Your task to perform on an android device: turn vacation reply on in the gmail app Image 0: 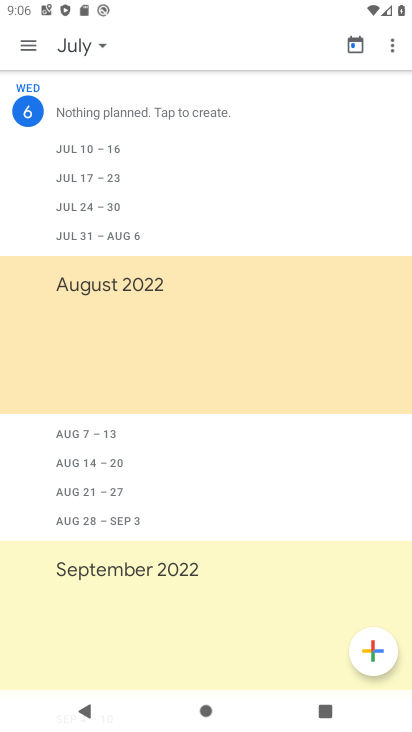
Step 0: press home button
Your task to perform on an android device: turn vacation reply on in the gmail app Image 1: 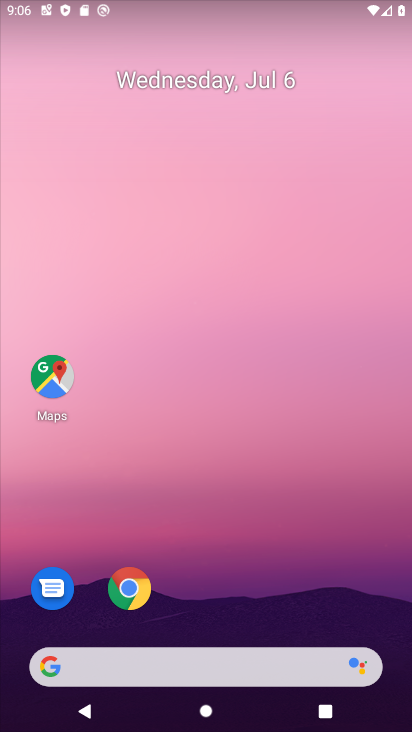
Step 1: drag from (171, 669) to (307, 41)
Your task to perform on an android device: turn vacation reply on in the gmail app Image 2: 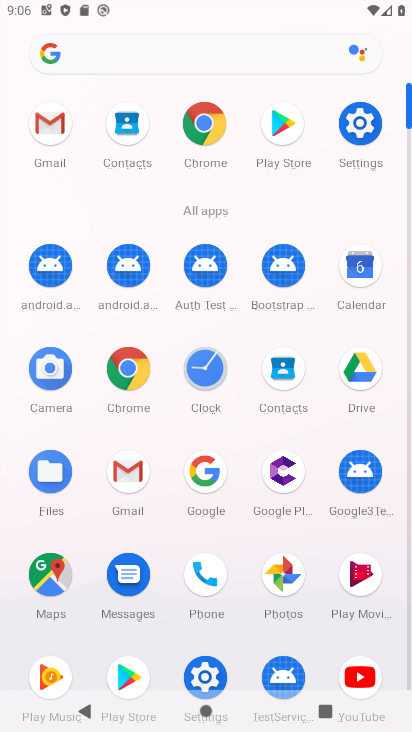
Step 2: click (131, 475)
Your task to perform on an android device: turn vacation reply on in the gmail app Image 3: 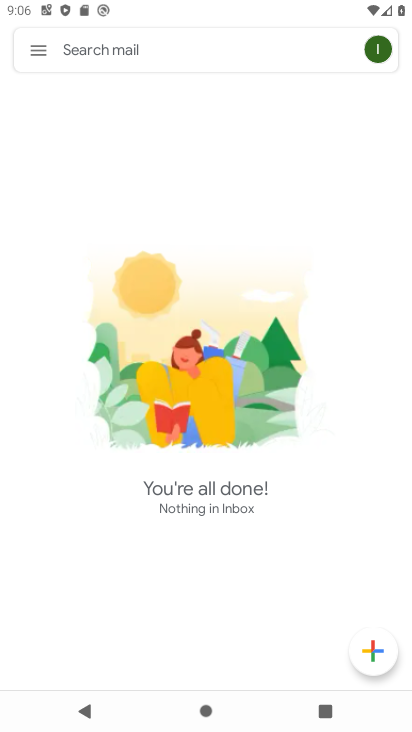
Step 3: click (41, 46)
Your task to perform on an android device: turn vacation reply on in the gmail app Image 4: 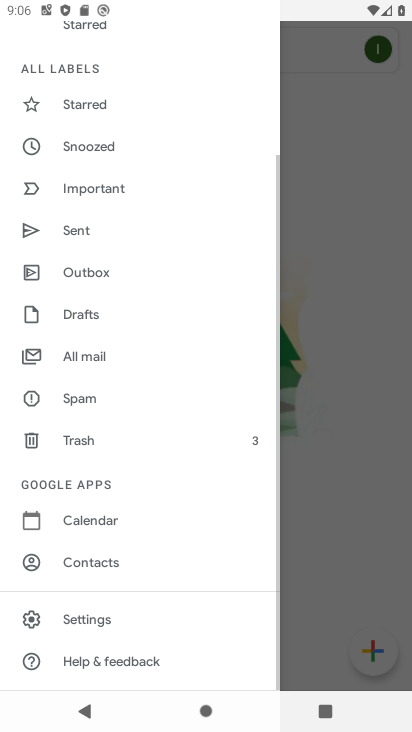
Step 4: click (109, 614)
Your task to perform on an android device: turn vacation reply on in the gmail app Image 5: 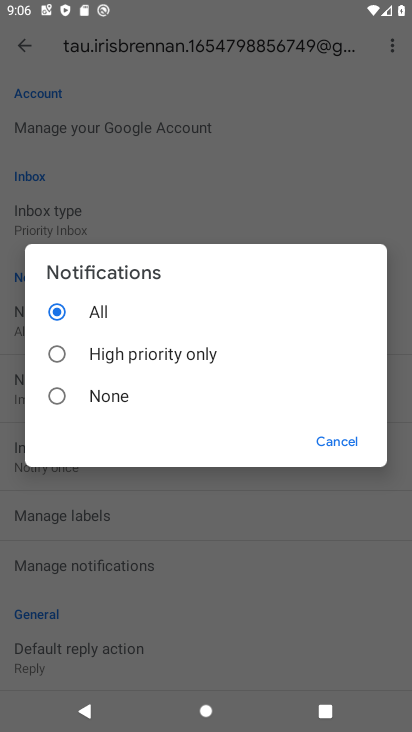
Step 5: click (341, 442)
Your task to perform on an android device: turn vacation reply on in the gmail app Image 6: 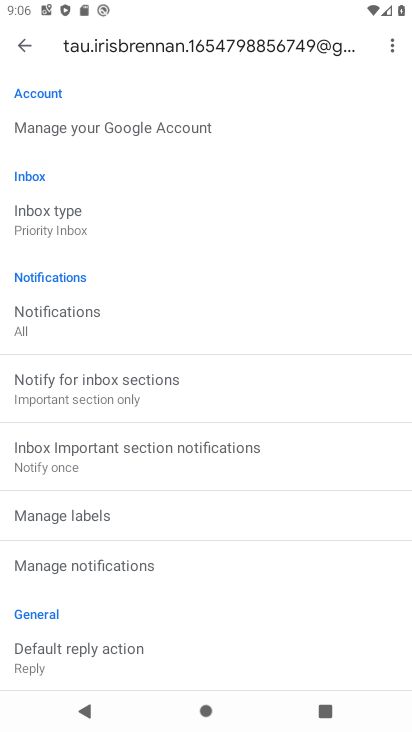
Step 6: drag from (281, 553) to (358, 171)
Your task to perform on an android device: turn vacation reply on in the gmail app Image 7: 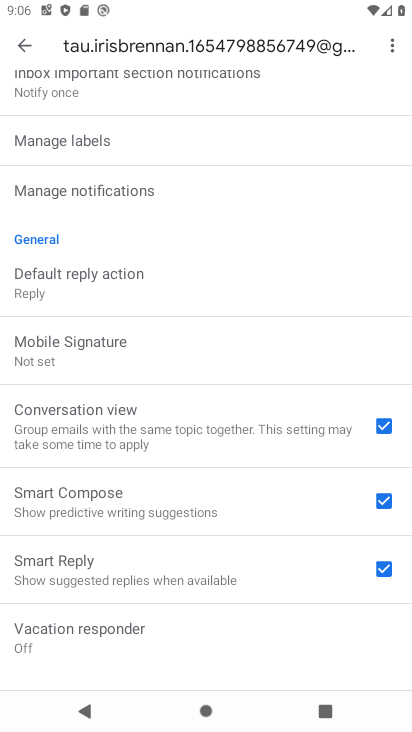
Step 7: click (131, 631)
Your task to perform on an android device: turn vacation reply on in the gmail app Image 8: 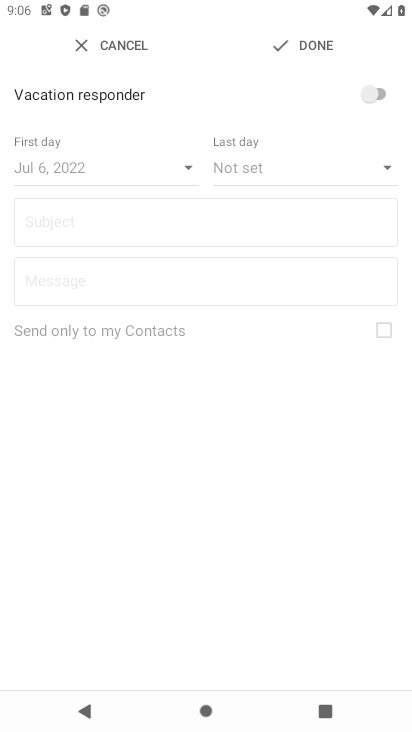
Step 8: click (380, 88)
Your task to perform on an android device: turn vacation reply on in the gmail app Image 9: 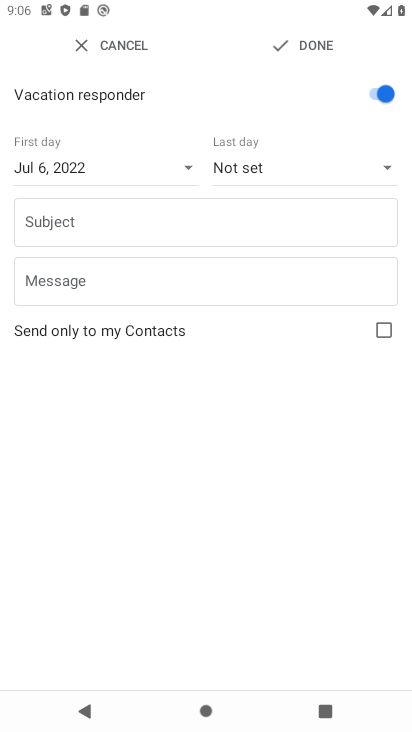
Step 9: task complete